Your task to perform on an android device: Open Reddit.com Image 0: 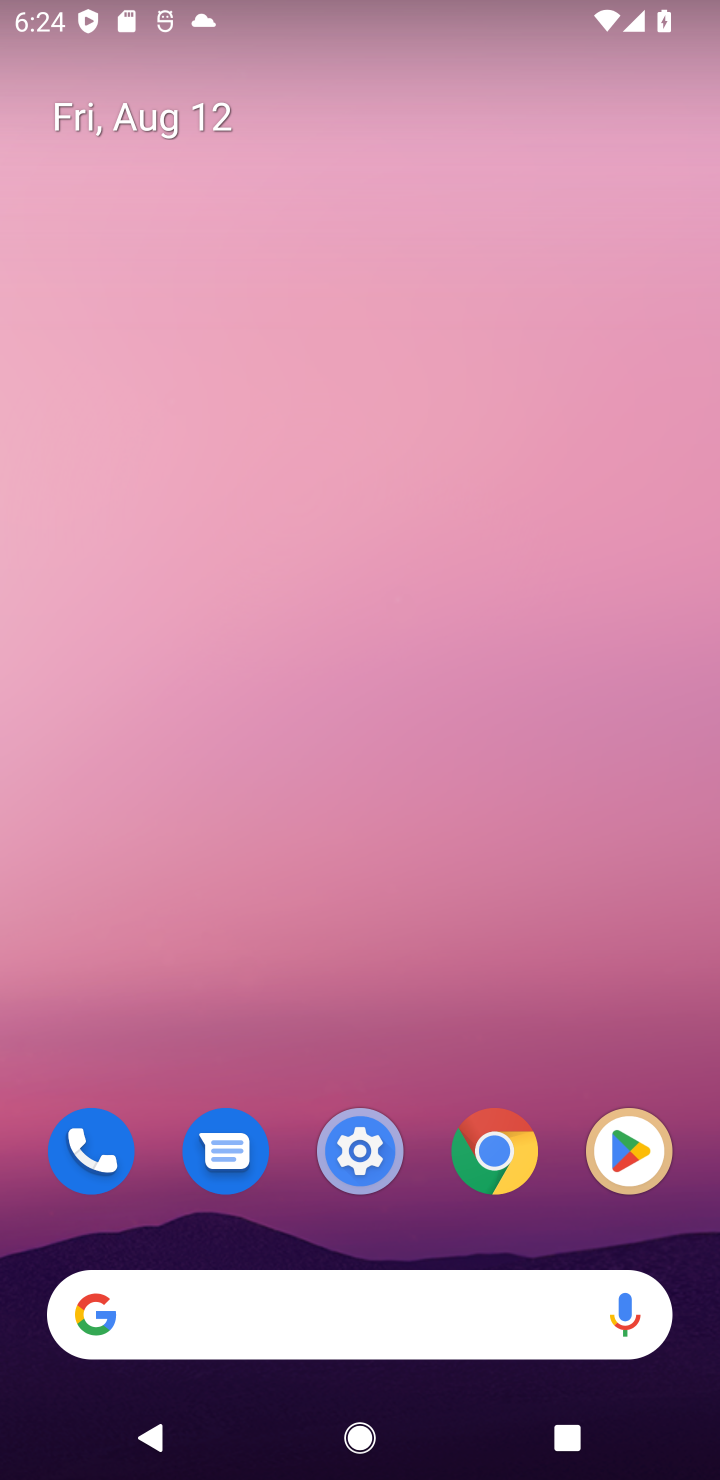
Step 0: drag from (346, 983) to (390, 259)
Your task to perform on an android device: Open Reddit.com Image 1: 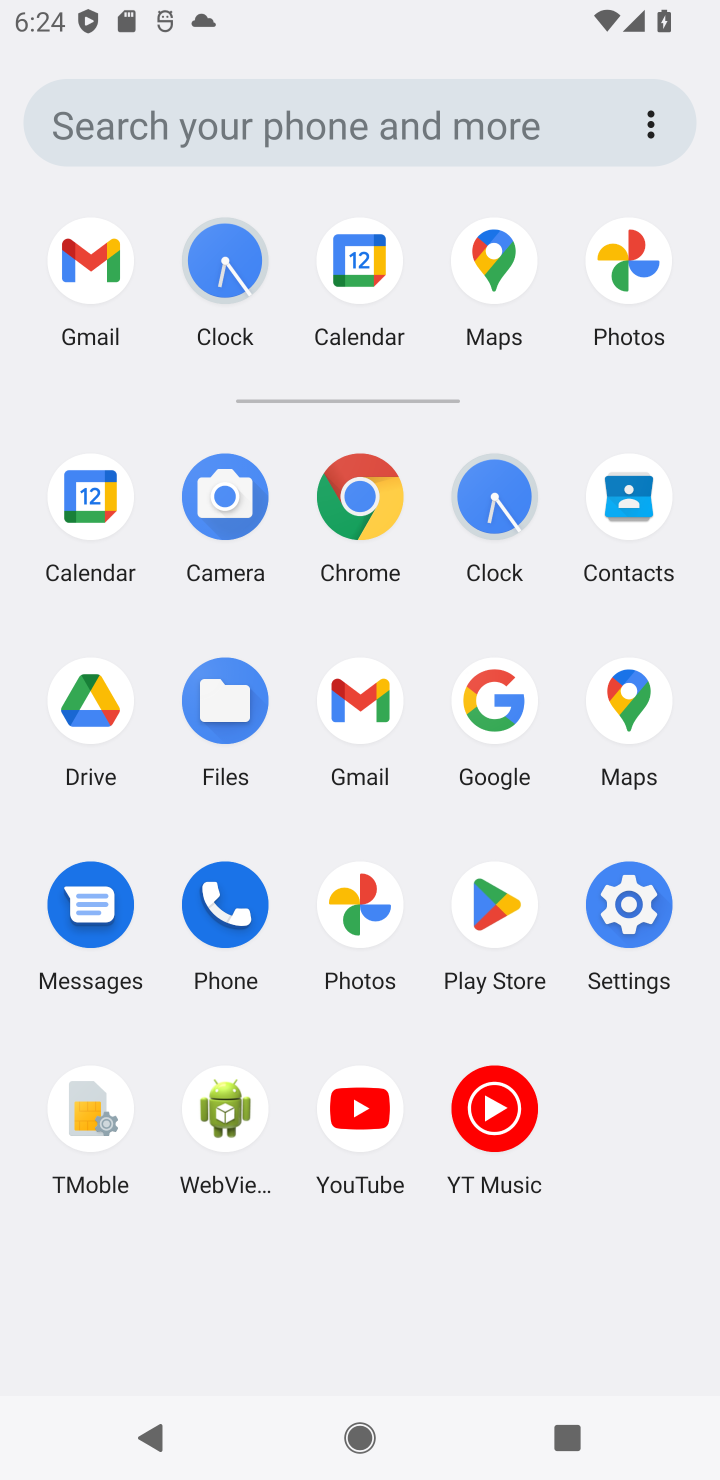
Step 1: click (368, 496)
Your task to perform on an android device: Open Reddit.com Image 2: 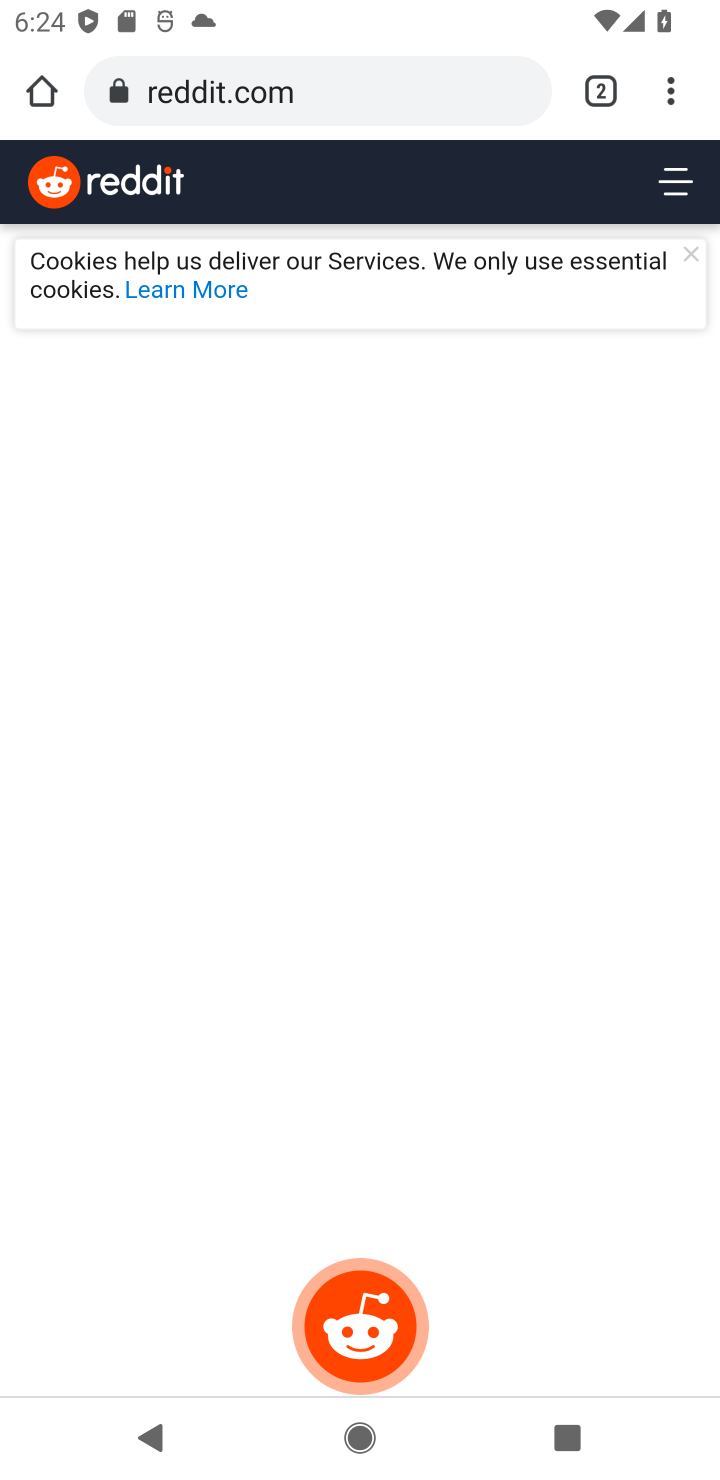
Step 2: task complete